Your task to perform on an android device: See recent photos Image 0: 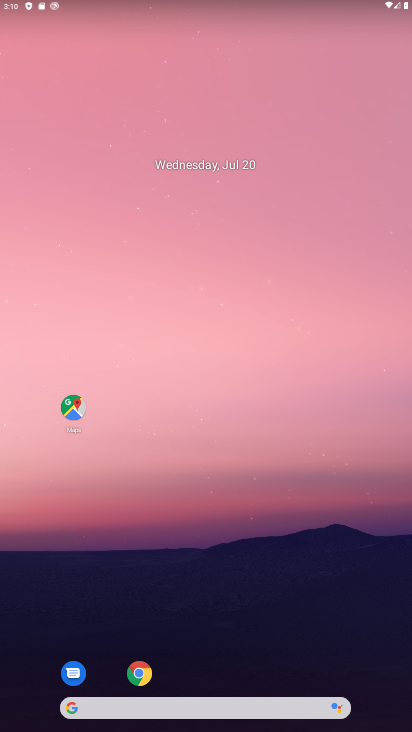
Step 0: drag from (175, 659) to (167, 236)
Your task to perform on an android device: See recent photos Image 1: 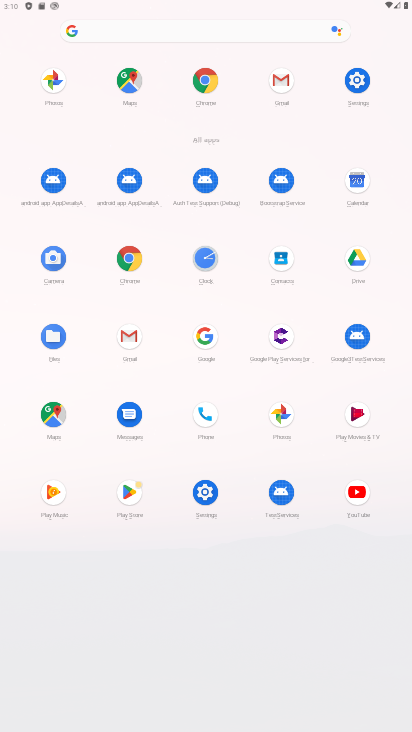
Step 1: click (59, 79)
Your task to perform on an android device: See recent photos Image 2: 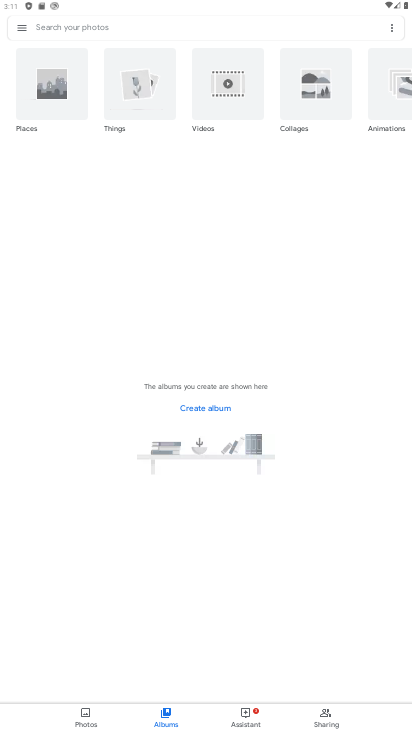
Step 2: task complete